Your task to perform on an android device: Is it going to rain this weekend? Image 0: 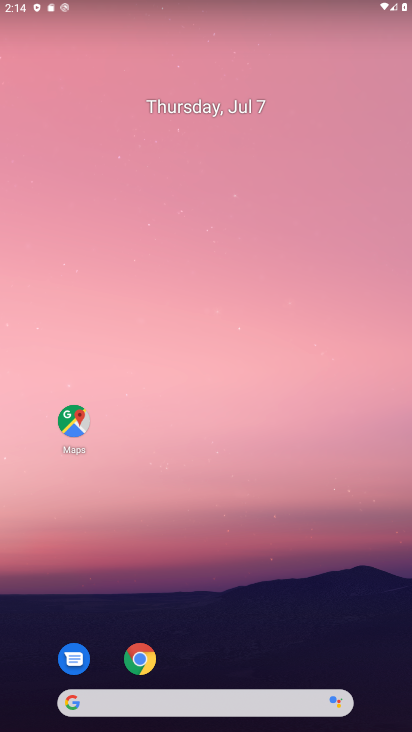
Step 0: press home button
Your task to perform on an android device: Is it going to rain this weekend? Image 1: 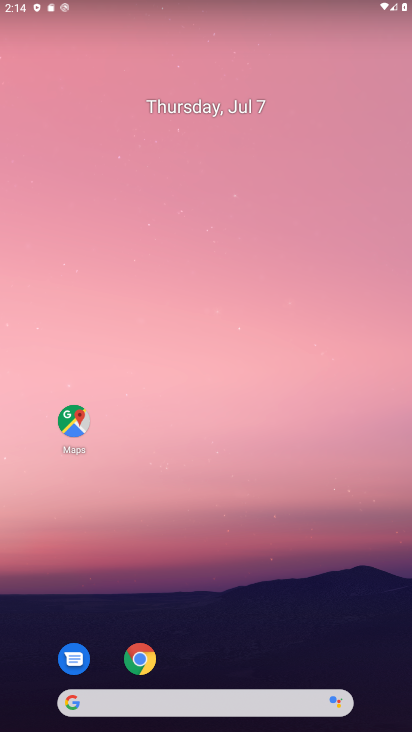
Step 1: click (150, 699)
Your task to perform on an android device: Is it going to rain this weekend? Image 2: 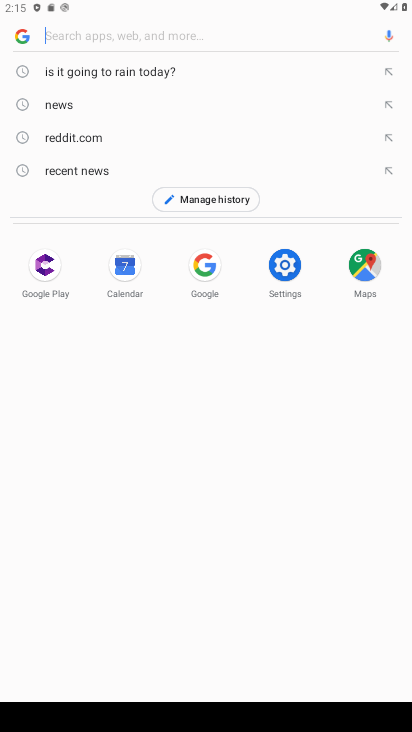
Step 2: click (132, 65)
Your task to perform on an android device: Is it going to rain this weekend? Image 3: 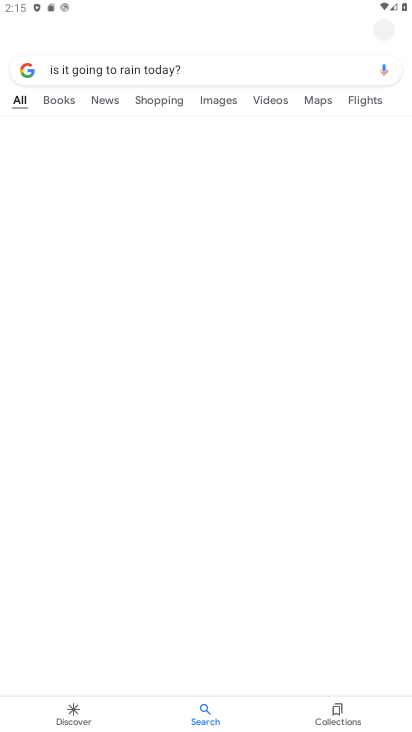
Step 3: click (184, 64)
Your task to perform on an android device: Is it going to rain this weekend? Image 4: 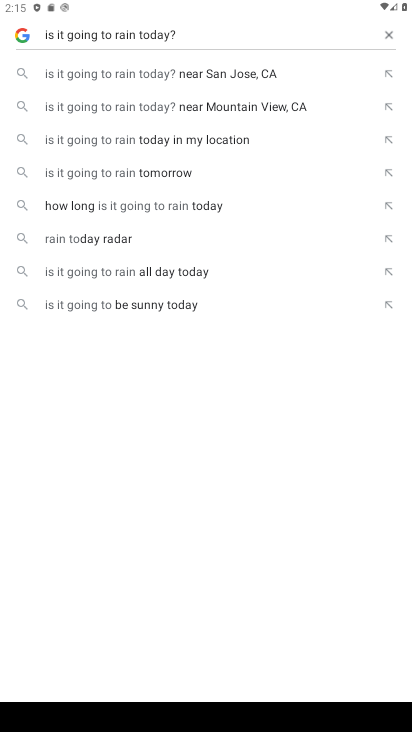
Step 4: click (162, 32)
Your task to perform on an android device: Is it going to rain this weekend? Image 5: 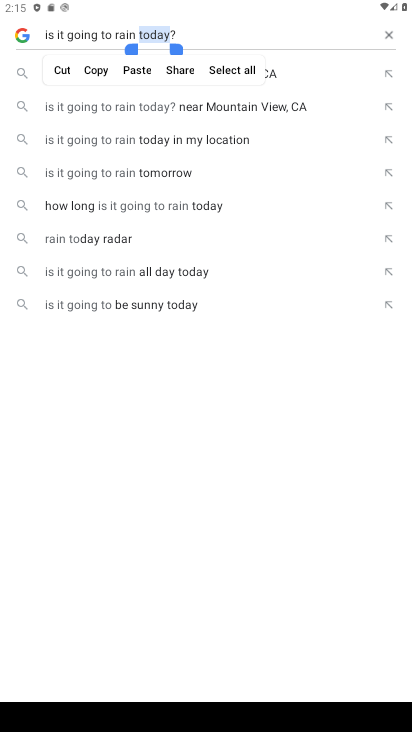
Step 5: click (172, 51)
Your task to perform on an android device: Is it going to rain this weekend? Image 6: 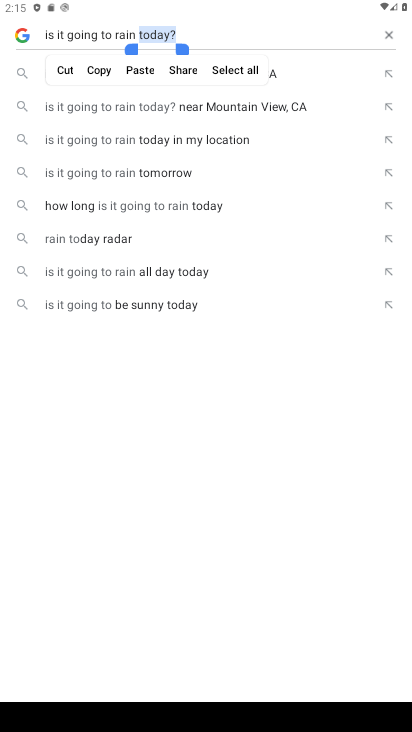
Step 6: click (61, 68)
Your task to perform on an android device: Is it going to rain this weekend? Image 7: 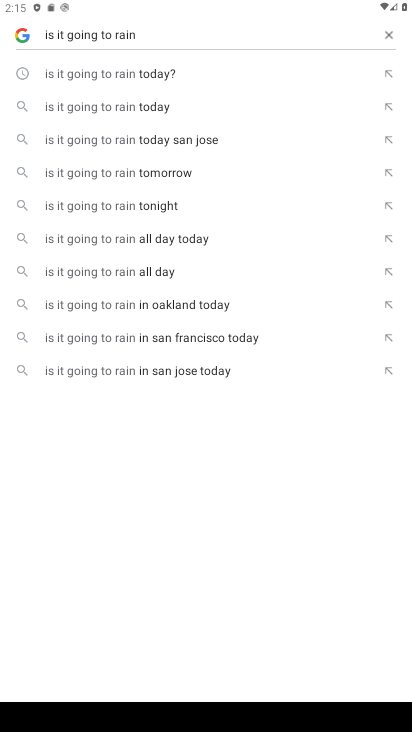
Step 7: type "this weekend?"
Your task to perform on an android device: Is it going to rain this weekend? Image 8: 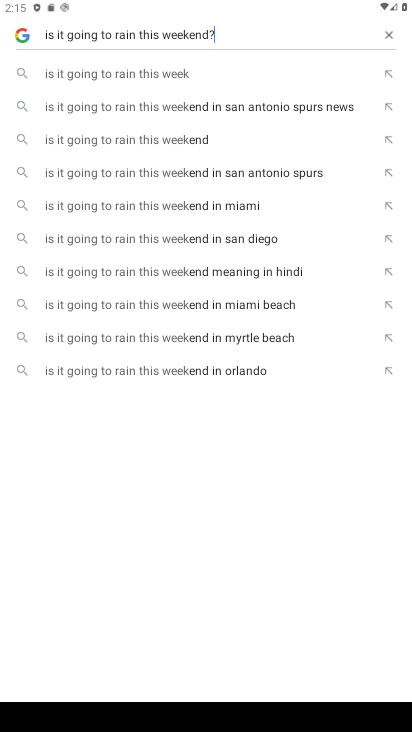
Step 8: type ""
Your task to perform on an android device: Is it going to rain this weekend? Image 9: 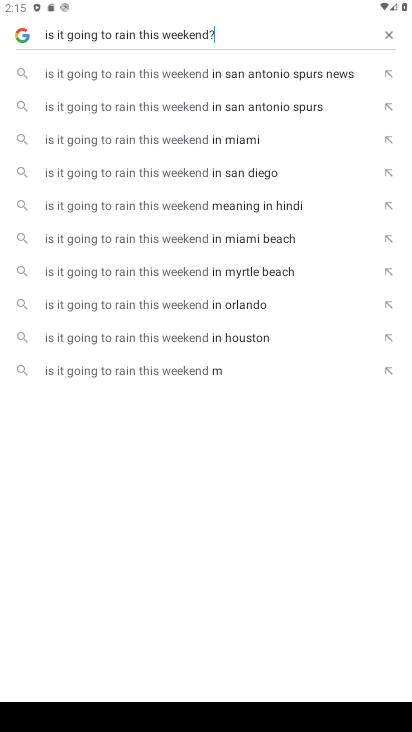
Step 9: click (181, 373)
Your task to perform on an android device: Is it going to rain this weekend? Image 10: 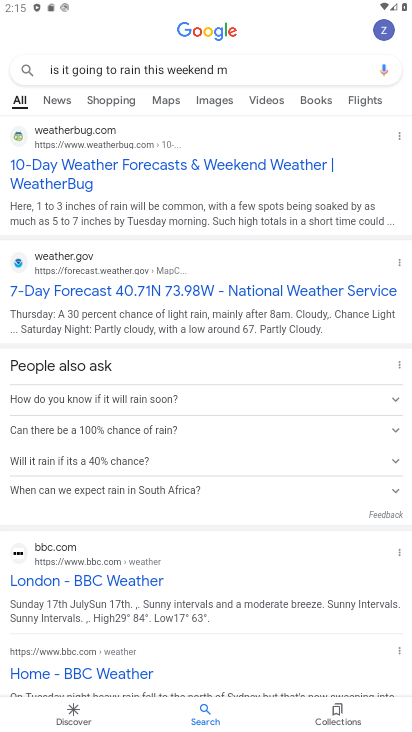
Step 10: click (108, 171)
Your task to perform on an android device: Is it going to rain this weekend? Image 11: 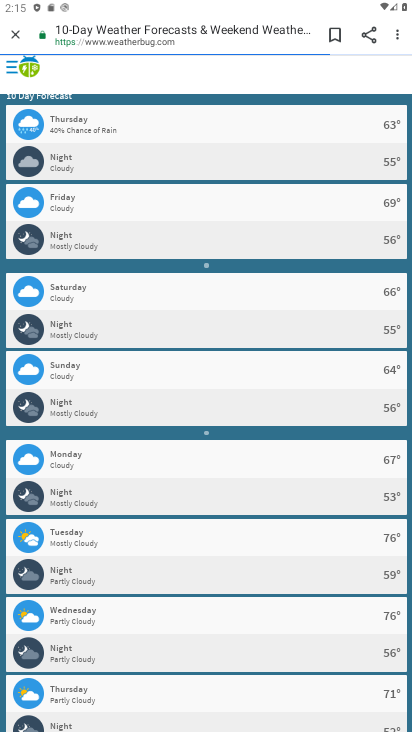
Step 11: task complete